Your task to perform on an android device: change timer sound Image 0: 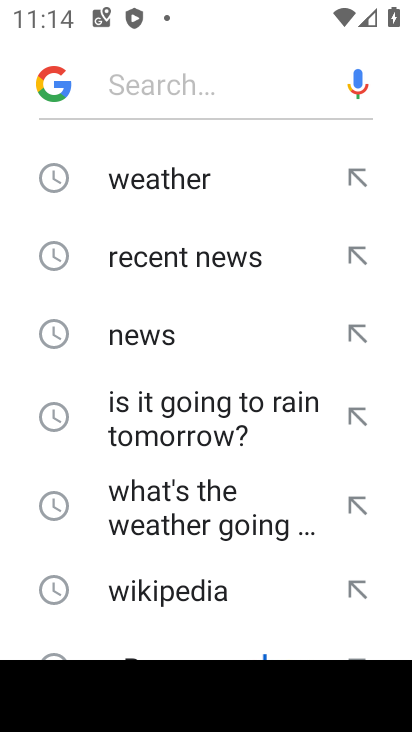
Step 0: press home button
Your task to perform on an android device: change timer sound Image 1: 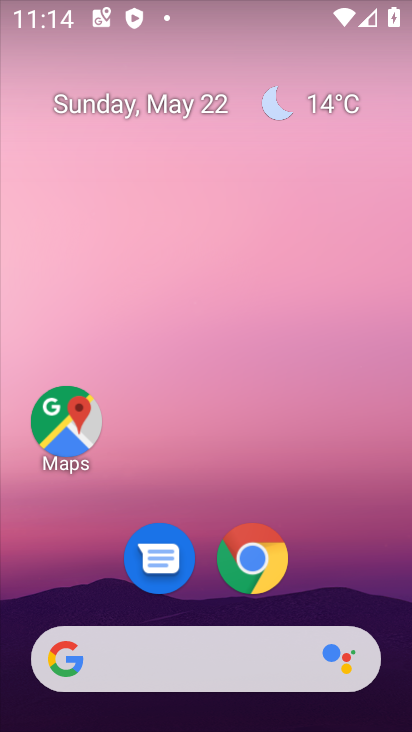
Step 1: drag from (324, 606) to (280, 18)
Your task to perform on an android device: change timer sound Image 2: 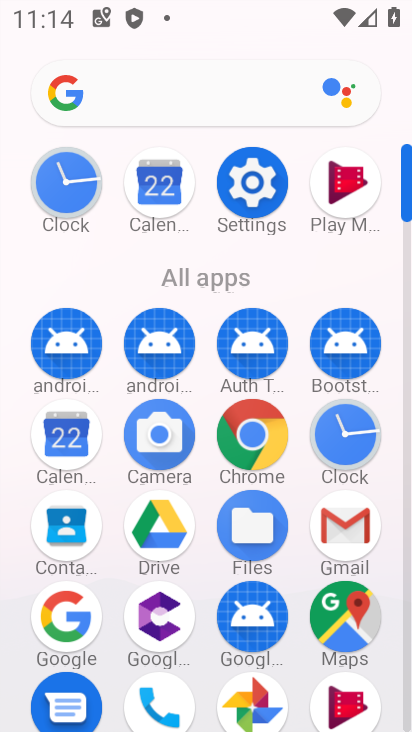
Step 2: click (64, 180)
Your task to perform on an android device: change timer sound Image 3: 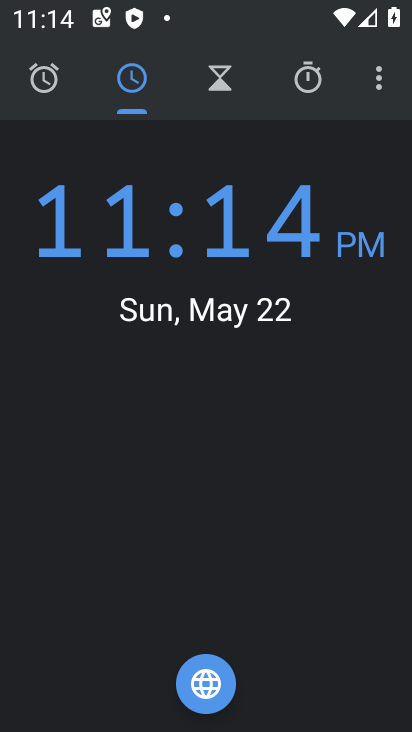
Step 3: click (380, 84)
Your task to perform on an android device: change timer sound Image 4: 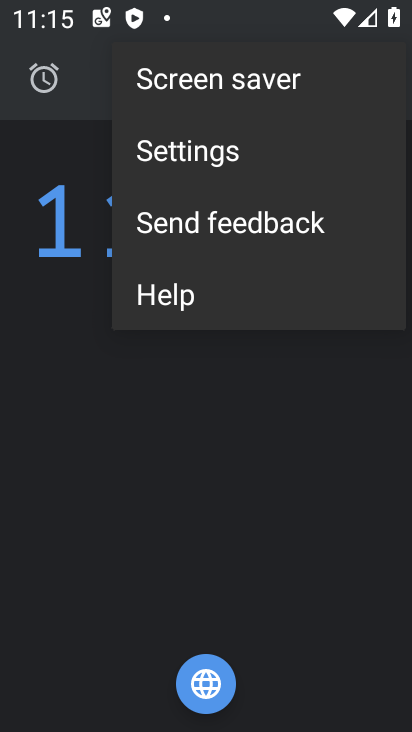
Step 4: click (185, 157)
Your task to perform on an android device: change timer sound Image 5: 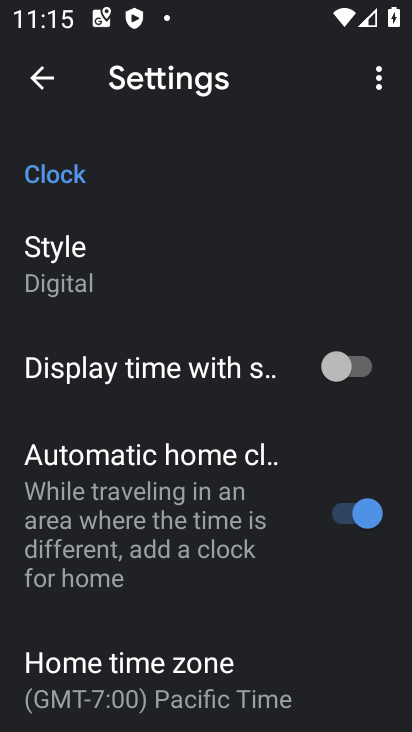
Step 5: drag from (154, 492) to (191, 154)
Your task to perform on an android device: change timer sound Image 6: 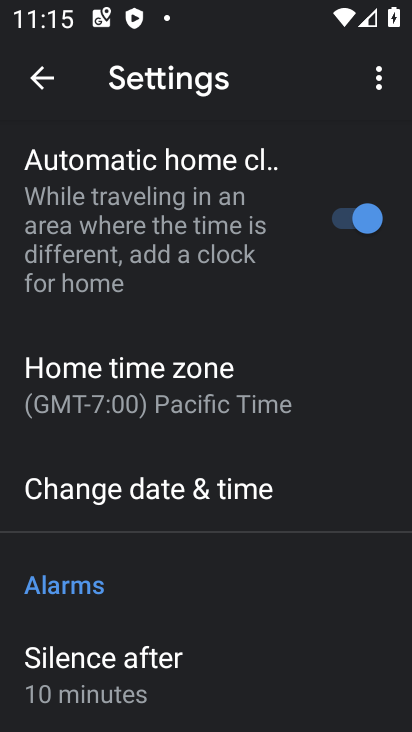
Step 6: drag from (127, 475) to (163, 160)
Your task to perform on an android device: change timer sound Image 7: 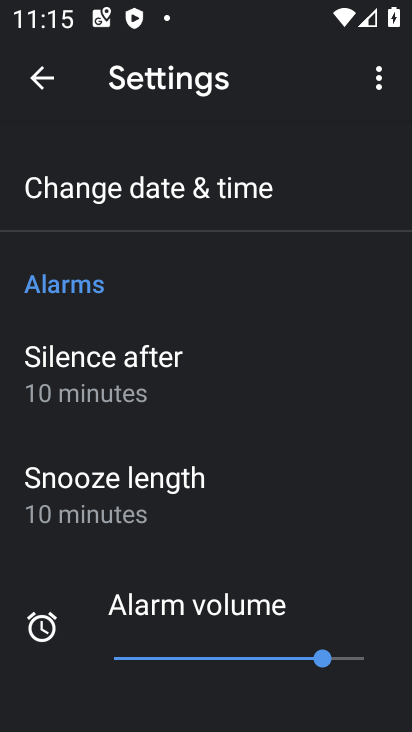
Step 7: drag from (129, 489) to (157, 130)
Your task to perform on an android device: change timer sound Image 8: 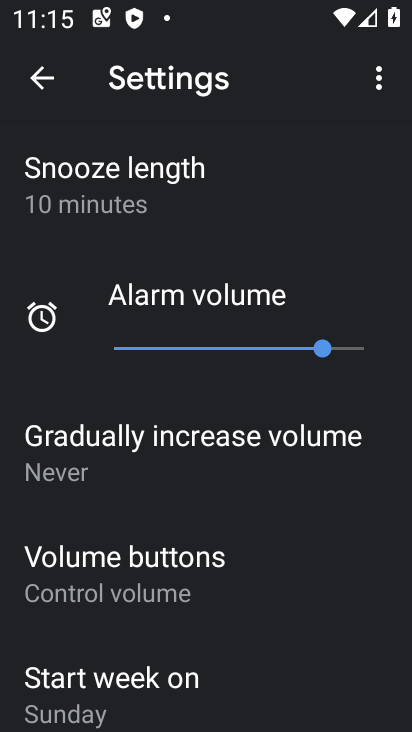
Step 8: drag from (133, 447) to (158, 127)
Your task to perform on an android device: change timer sound Image 9: 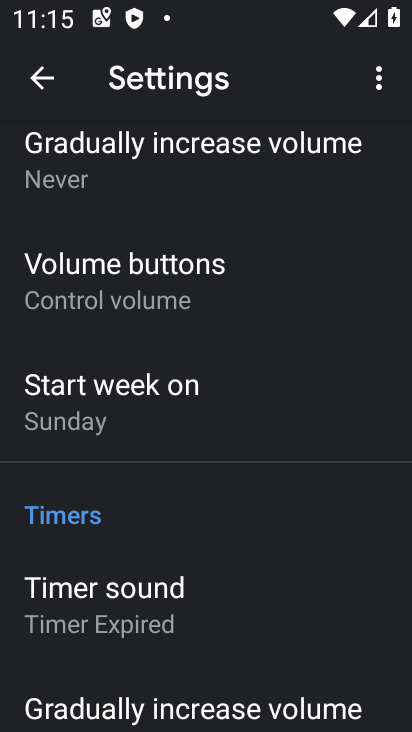
Step 9: drag from (138, 477) to (153, 207)
Your task to perform on an android device: change timer sound Image 10: 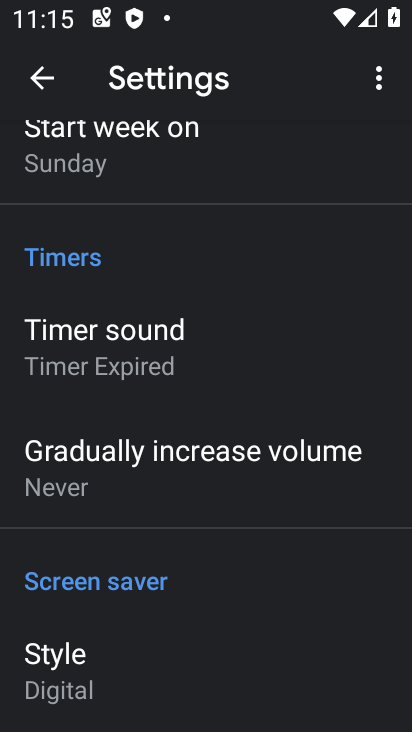
Step 10: click (110, 339)
Your task to perform on an android device: change timer sound Image 11: 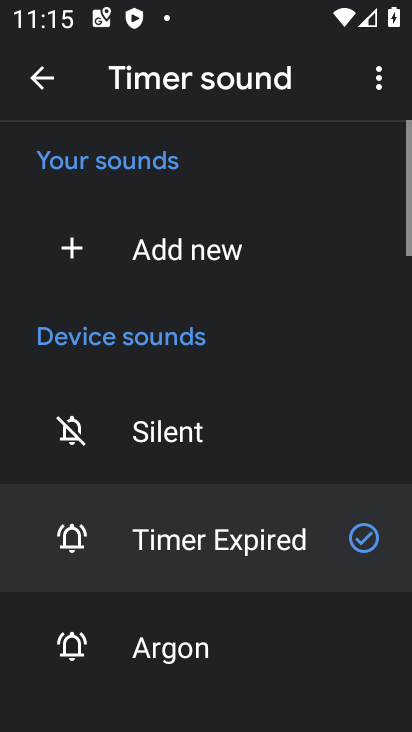
Step 11: drag from (247, 461) to (249, 201)
Your task to perform on an android device: change timer sound Image 12: 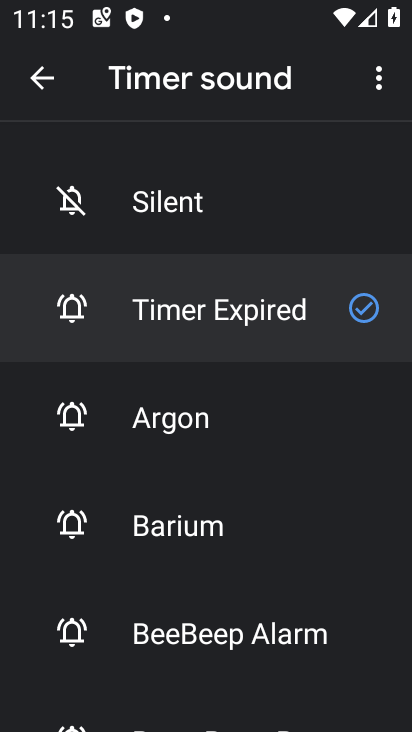
Step 12: click (174, 422)
Your task to perform on an android device: change timer sound Image 13: 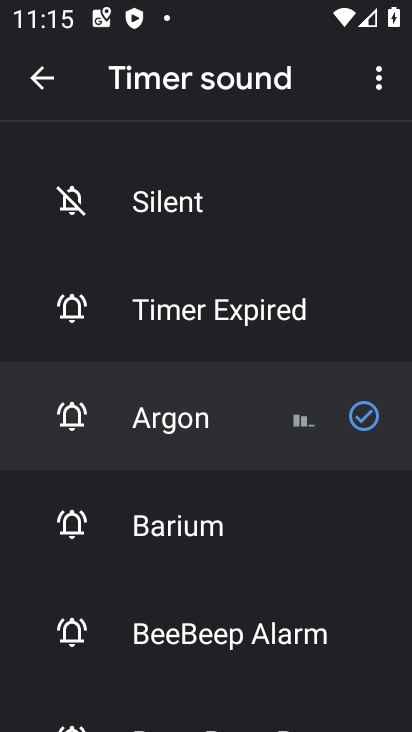
Step 13: task complete